Your task to perform on an android device: Go to CNN.com Image 0: 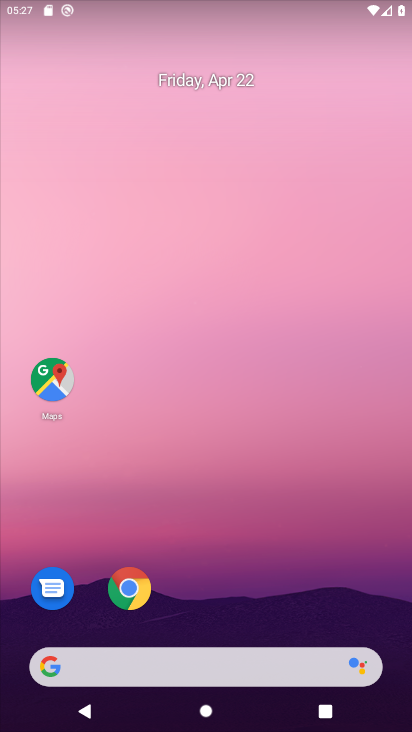
Step 0: click (137, 586)
Your task to perform on an android device: Go to CNN.com Image 1: 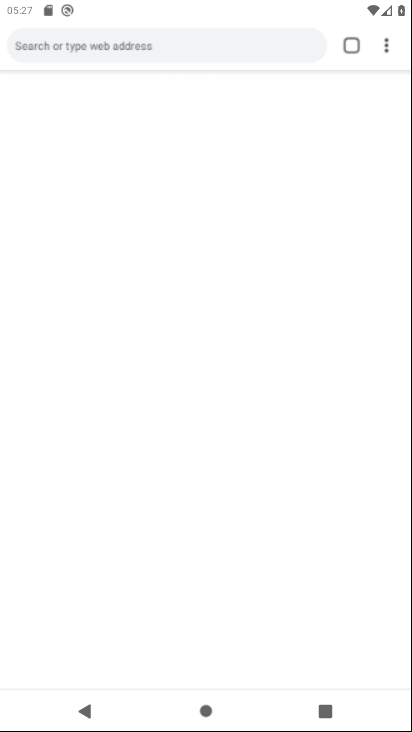
Step 1: click (120, 42)
Your task to perform on an android device: Go to CNN.com Image 2: 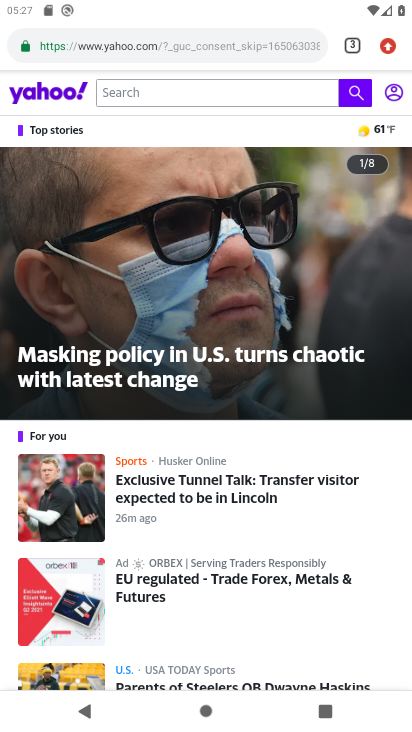
Step 2: click (120, 42)
Your task to perform on an android device: Go to CNN.com Image 3: 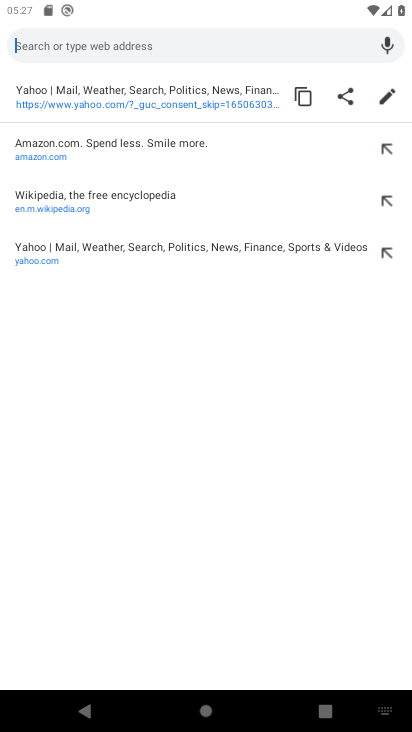
Step 3: type "cnn.com"
Your task to perform on an android device: Go to CNN.com Image 4: 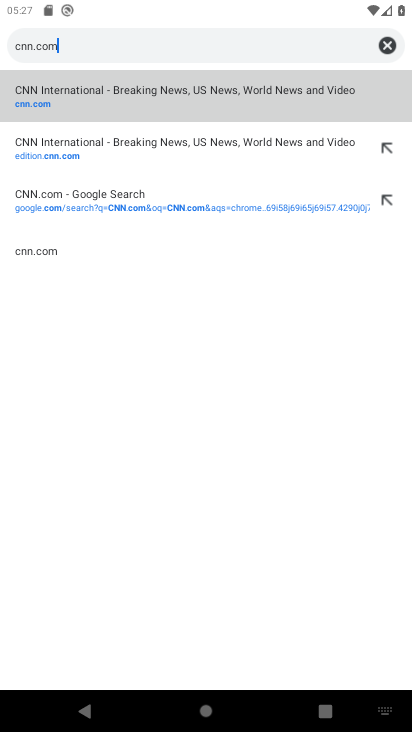
Step 4: click (211, 92)
Your task to perform on an android device: Go to CNN.com Image 5: 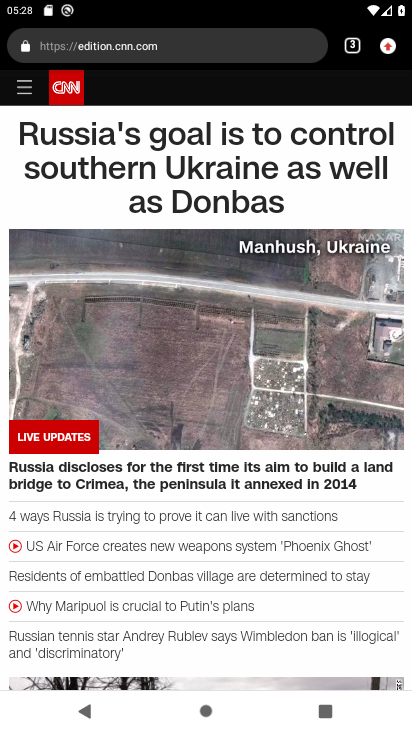
Step 5: task complete